Your task to perform on an android device: Open the calendar and show me this week's events? Image 0: 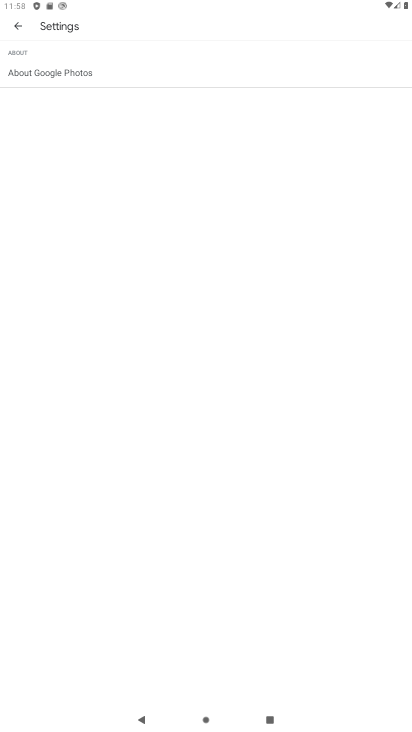
Step 0: task complete